Your task to perform on an android device: Open the Play Movies app and select the watchlist tab. Image 0: 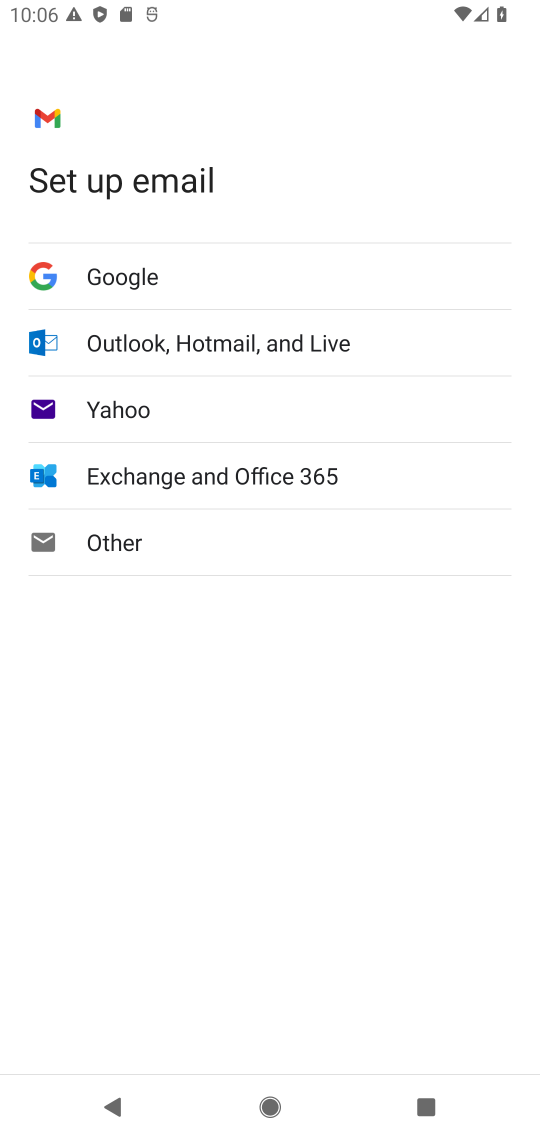
Step 0: press home button
Your task to perform on an android device: Open the Play Movies app and select the watchlist tab. Image 1: 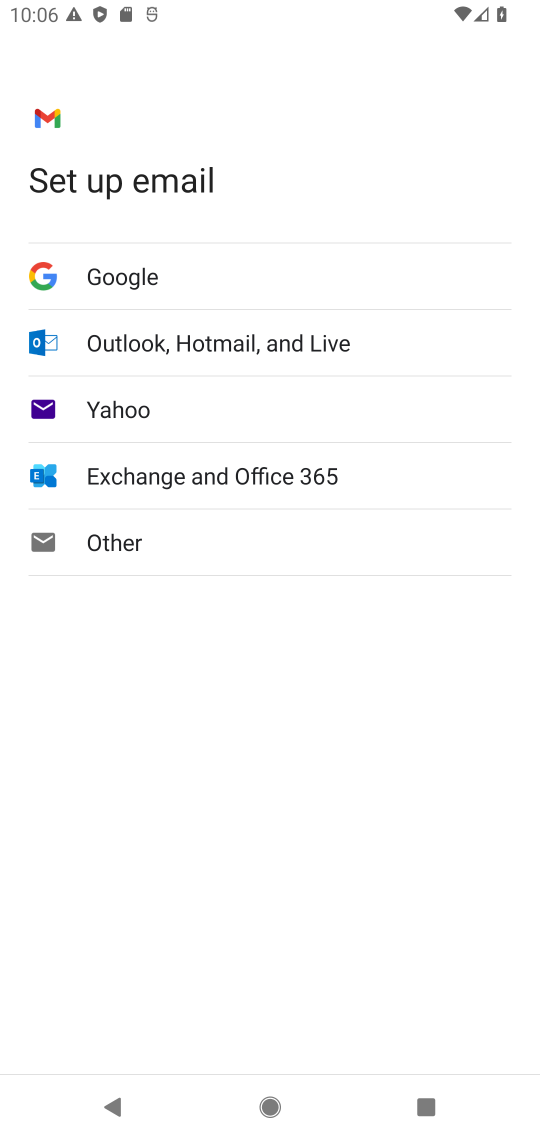
Step 1: task complete